Your task to perform on an android device: turn off improve location accuracy Image 0: 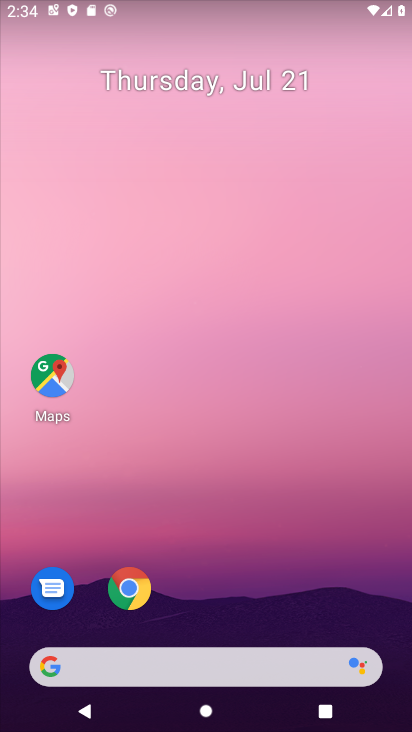
Step 0: click (308, 508)
Your task to perform on an android device: turn off improve location accuracy Image 1: 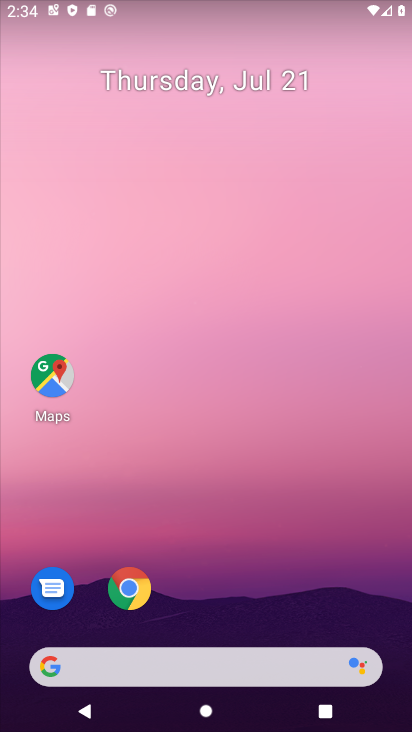
Step 1: drag from (107, 722) to (155, 200)
Your task to perform on an android device: turn off improve location accuracy Image 2: 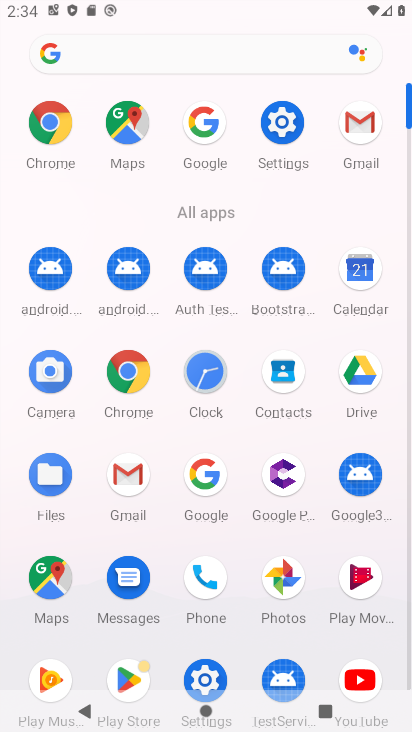
Step 2: drag from (211, 341) to (217, 134)
Your task to perform on an android device: turn off improve location accuracy Image 3: 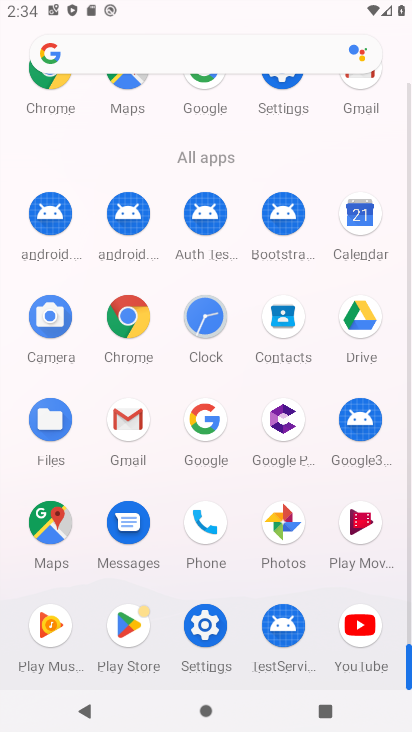
Step 3: click (198, 618)
Your task to perform on an android device: turn off improve location accuracy Image 4: 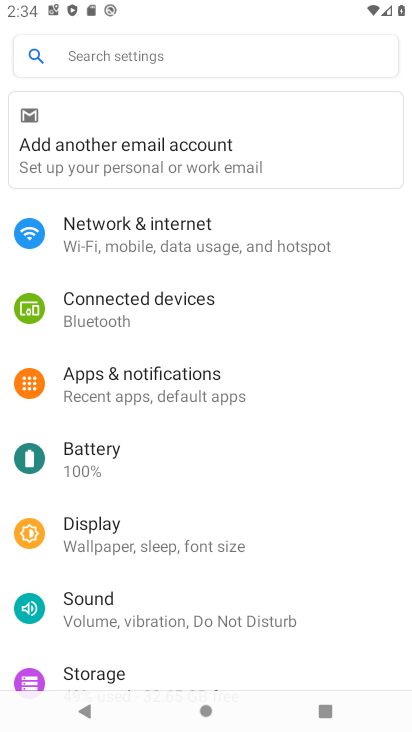
Step 4: drag from (166, 550) to (140, 316)
Your task to perform on an android device: turn off improve location accuracy Image 5: 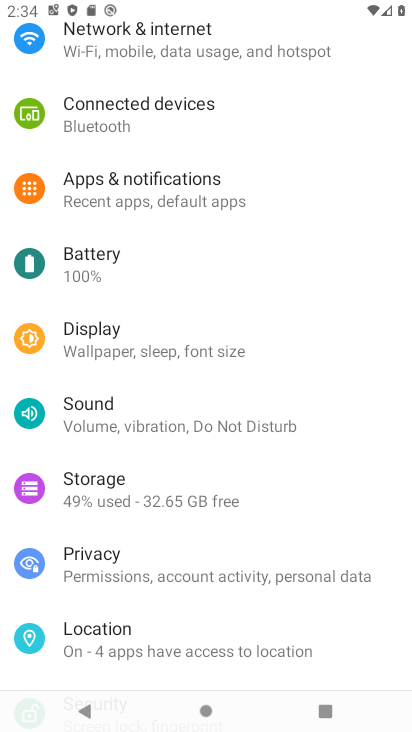
Step 5: click (228, 646)
Your task to perform on an android device: turn off improve location accuracy Image 6: 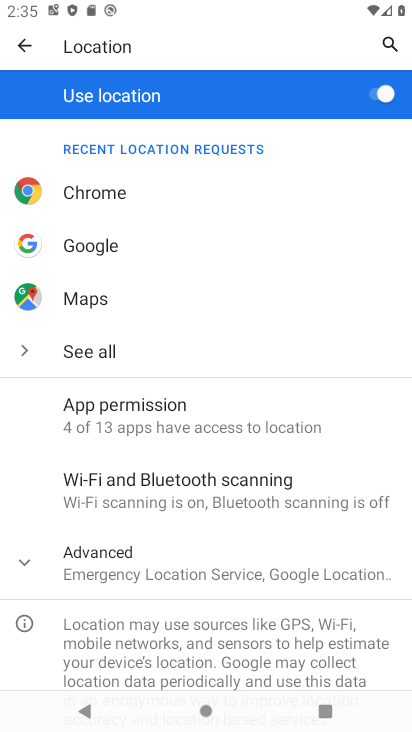
Step 6: click (208, 566)
Your task to perform on an android device: turn off improve location accuracy Image 7: 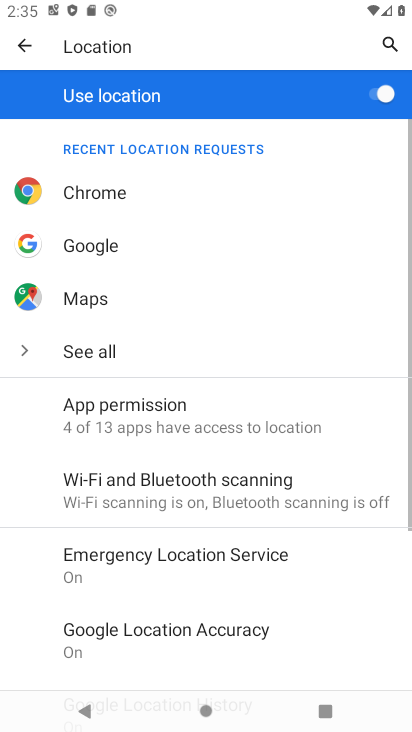
Step 7: drag from (205, 563) to (202, 285)
Your task to perform on an android device: turn off improve location accuracy Image 8: 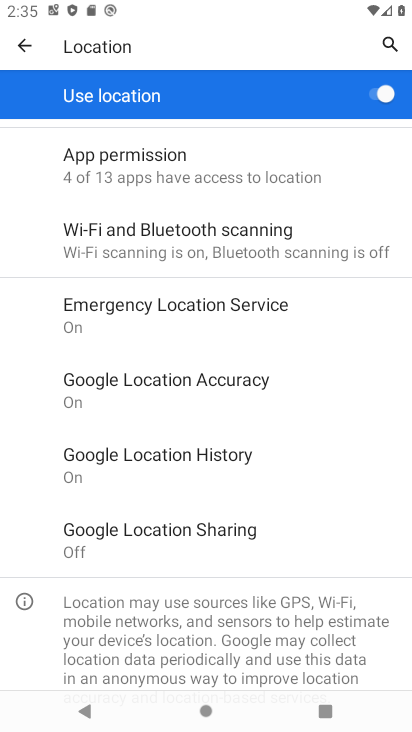
Step 8: click (266, 393)
Your task to perform on an android device: turn off improve location accuracy Image 9: 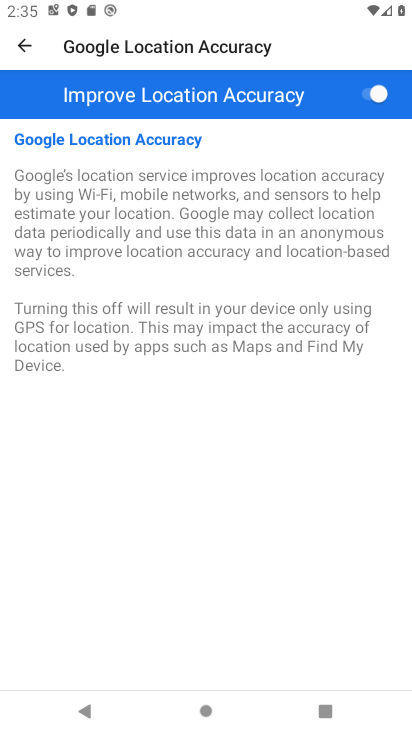
Step 9: click (368, 102)
Your task to perform on an android device: turn off improve location accuracy Image 10: 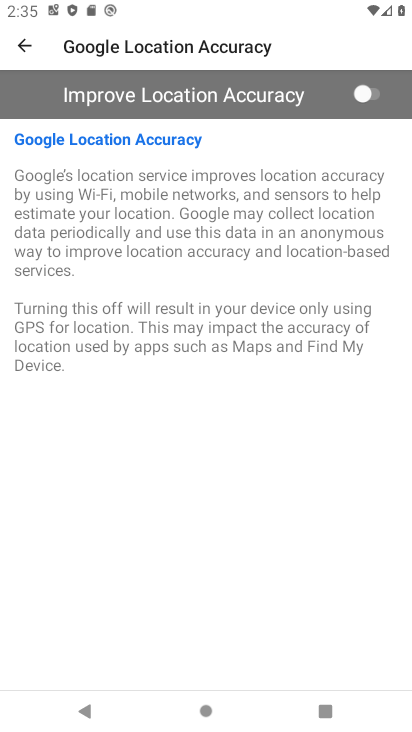
Step 10: task complete